Your task to perform on an android device: Go to calendar. Show me events next week Image 0: 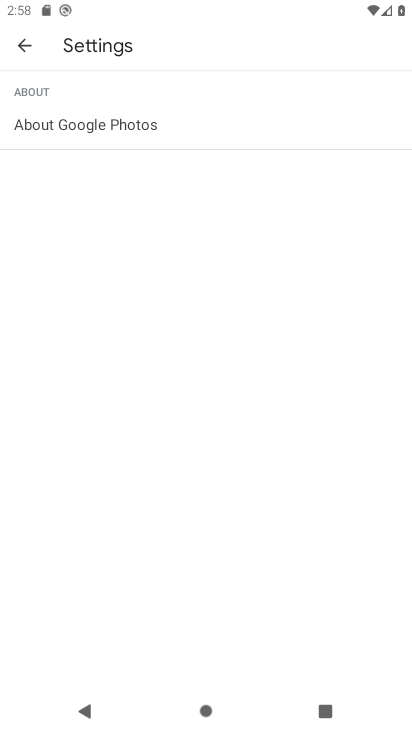
Step 0: press home button
Your task to perform on an android device: Go to calendar. Show me events next week Image 1: 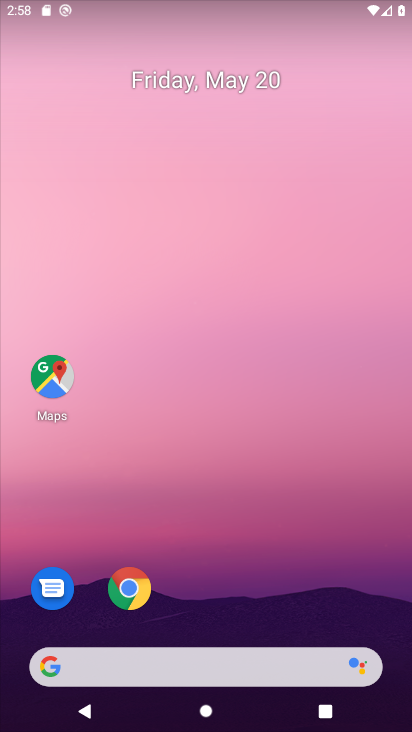
Step 1: drag from (277, 593) to (320, 127)
Your task to perform on an android device: Go to calendar. Show me events next week Image 2: 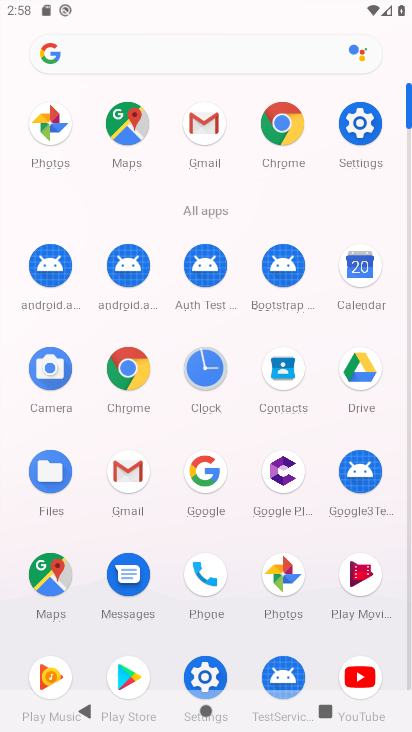
Step 2: click (367, 262)
Your task to perform on an android device: Go to calendar. Show me events next week Image 3: 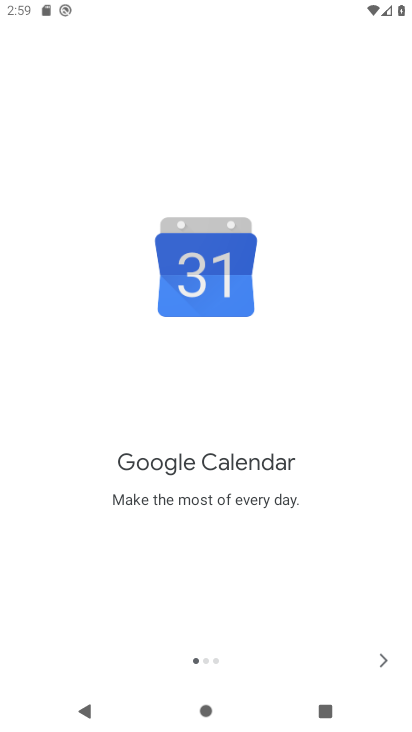
Step 3: click (380, 659)
Your task to perform on an android device: Go to calendar. Show me events next week Image 4: 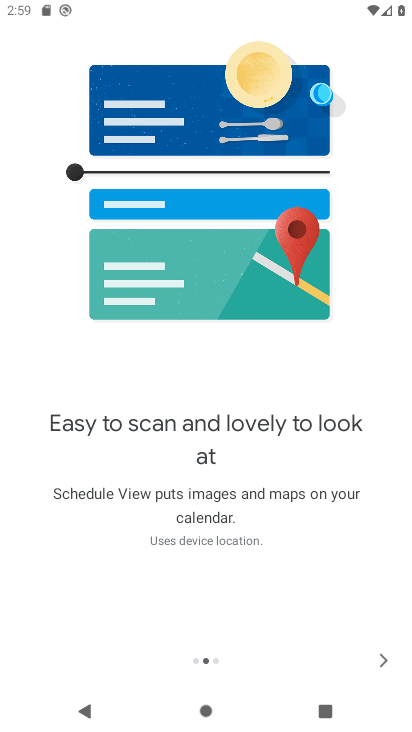
Step 4: click (380, 658)
Your task to perform on an android device: Go to calendar. Show me events next week Image 5: 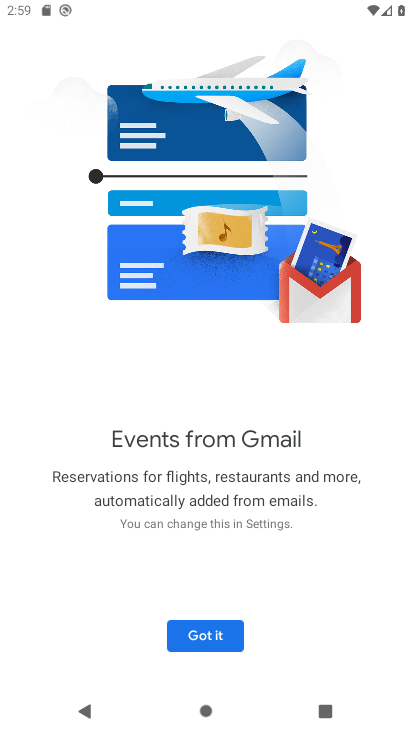
Step 5: click (228, 635)
Your task to perform on an android device: Go to calendar. Show me events next week Image 6: 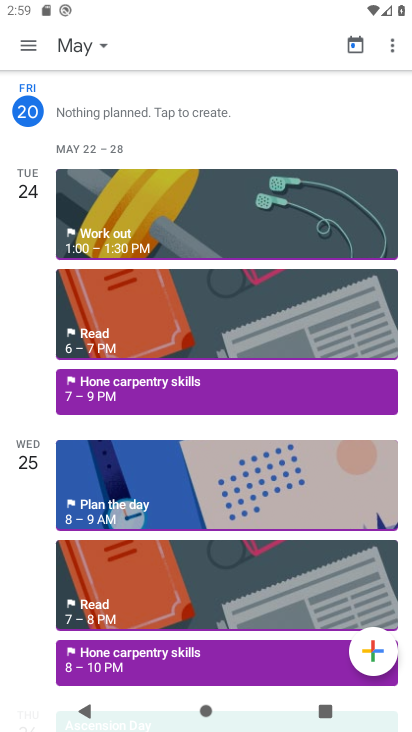
Step 6: click (61, 48)
Your task to perform on an android device: Go to calendar. Show me events next week Image 7: 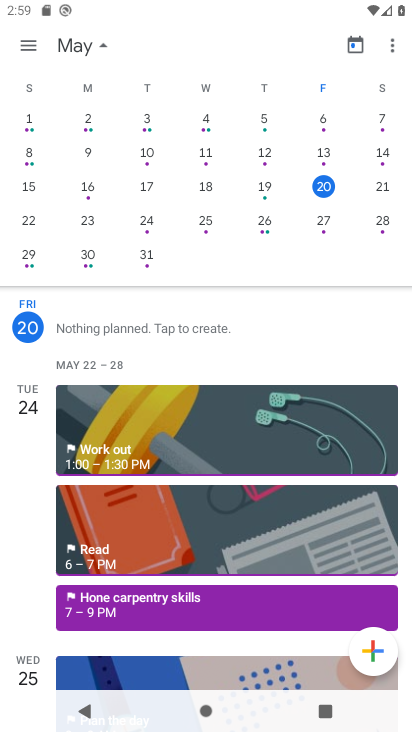
Step 7: click (89, 222)
Your task to perform on an android device: Go to calendar. Show me events next week Image 8: 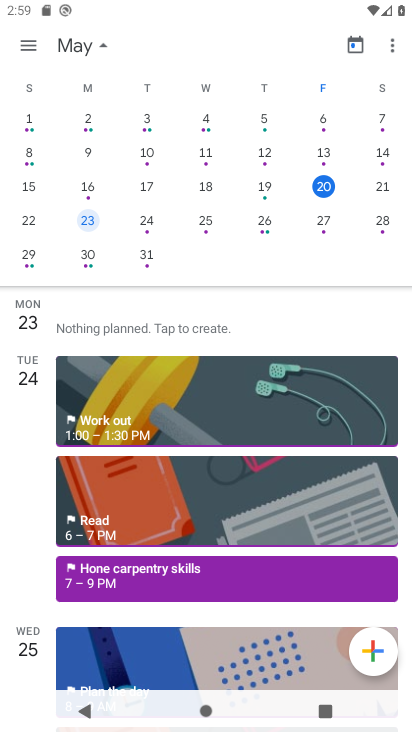
Step 8: click (23, 47)
Your task to perform on an android device: Go to calendar. Show me events next week Image 9: 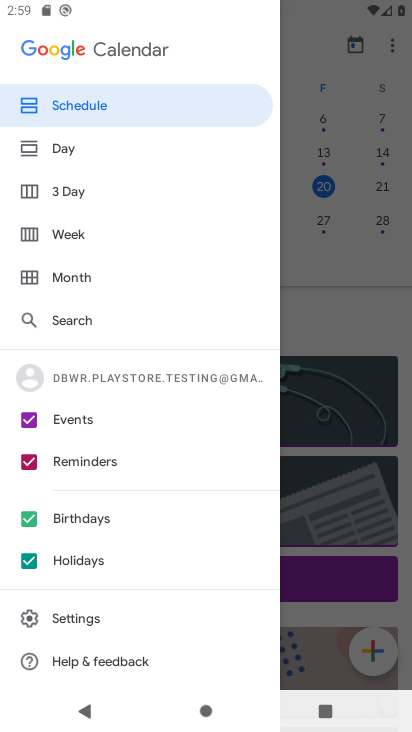
Step 9: click (78, 247)
Your task to perform on an android device: Go to calendar. Show me events next week Image 10: 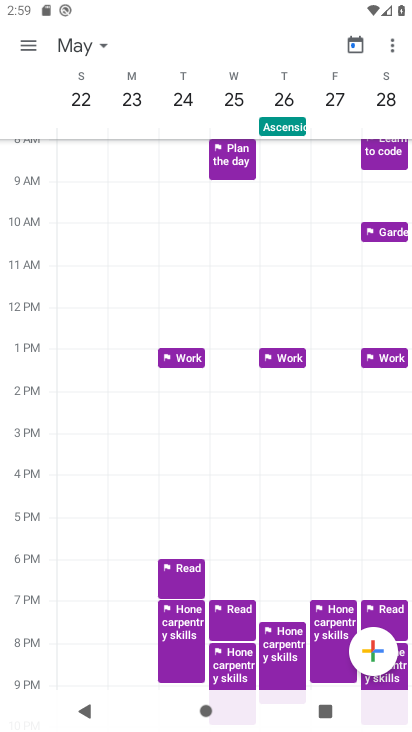
Step 10: task complete